Your task to perform on an android device: Do I have any events today? Image 0: 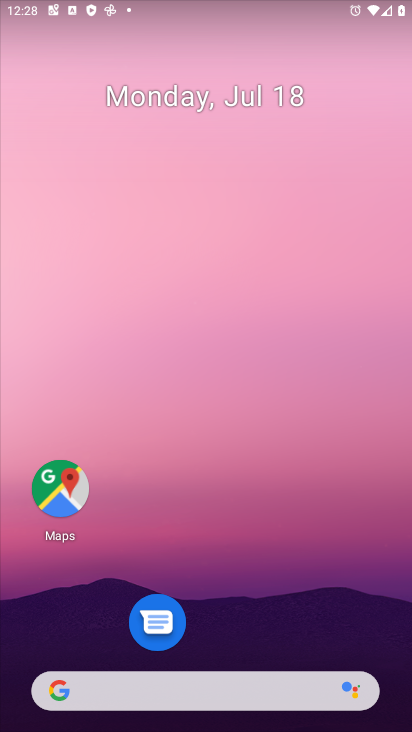
Step 0: drag from (120, 714) to (167, 262)
Your task to perform on an android device: Do I have any events today? Image 1: 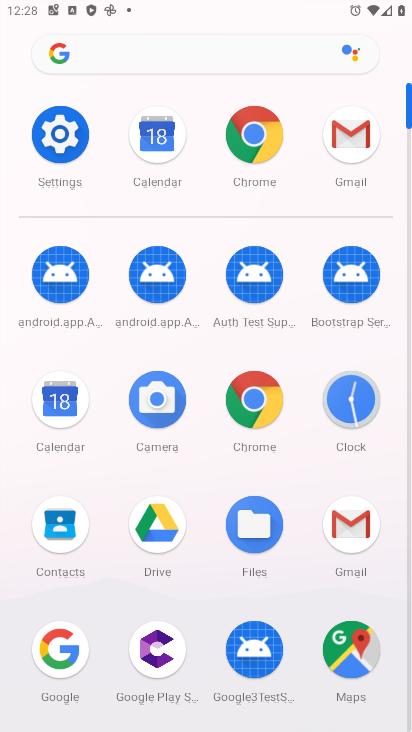
Step 1: click (61, 408)
Your task to perform on an android device: Do I have any events today? Image 2: 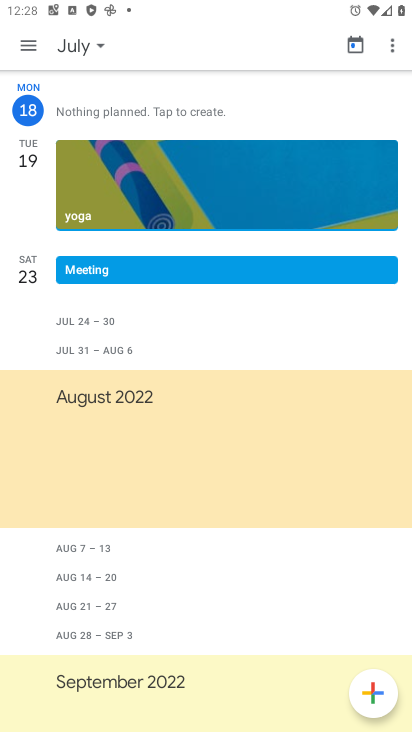
Step 2: click (62, 42)
Your task to perform on an android device: Do I have any events today? Image 3: 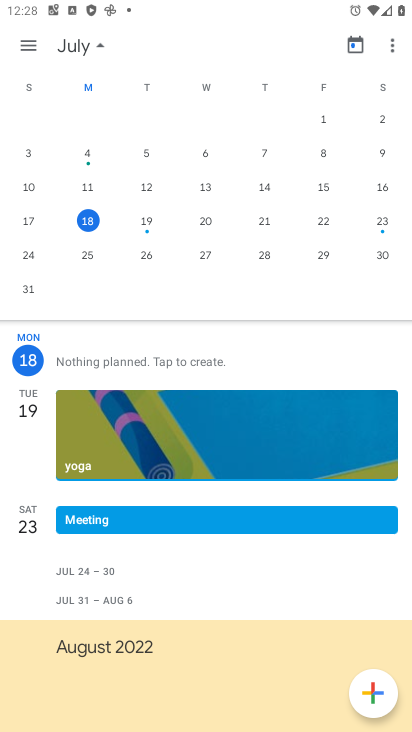
Step 3: click (84, 222)
Your task to perform on an android device: Do I have any events today? Image 4: 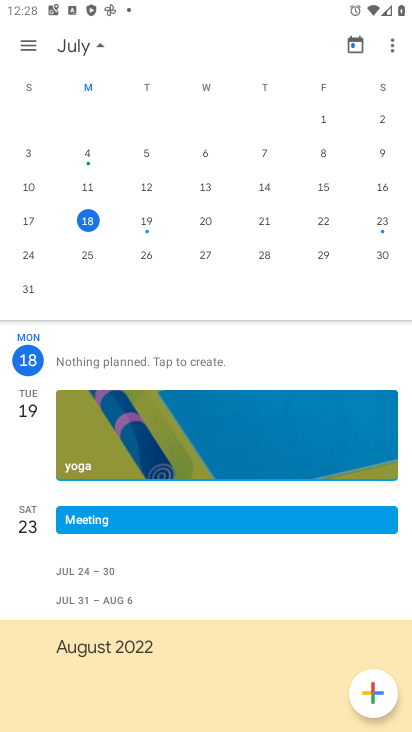
Step 4: task complete